Your task to perform on an android device: allow cookies in the chrome app Image 0: 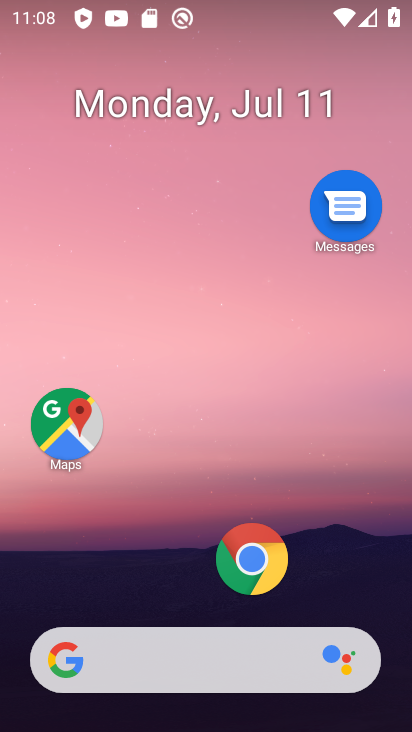
Step 0: drag from (329, 590) to (342, 126)
Your task to perform on an android device: allow cookies in the chrome app Image 1: 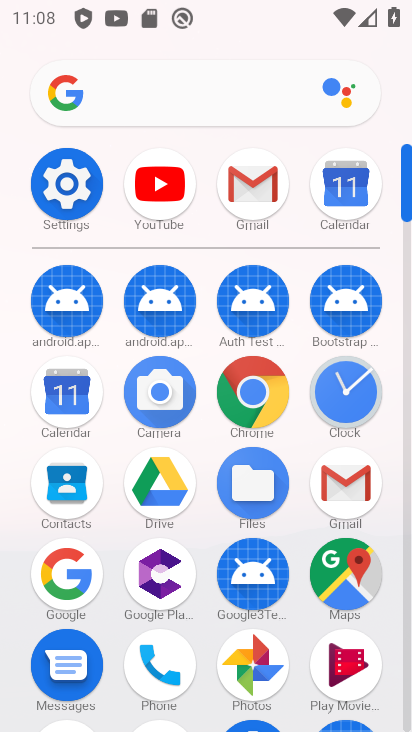
Step 1: click (278, 386)
Your task to perform on an android device: allow cookies in the chrome app Image 2: 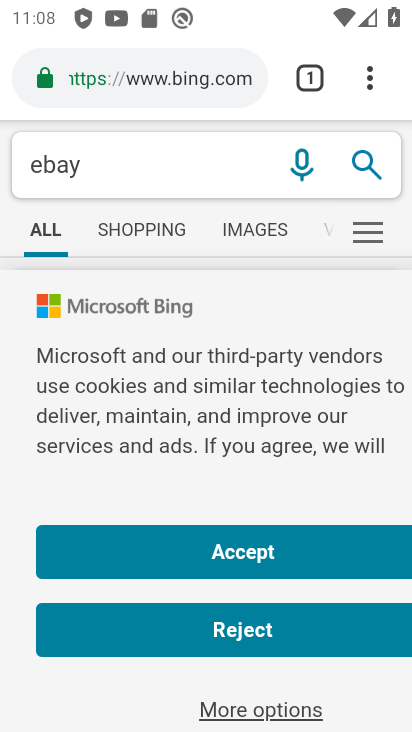
Step 2: click (367, 83)
Your task to perform on an android device: allow cookies in the chrome app Image 3: 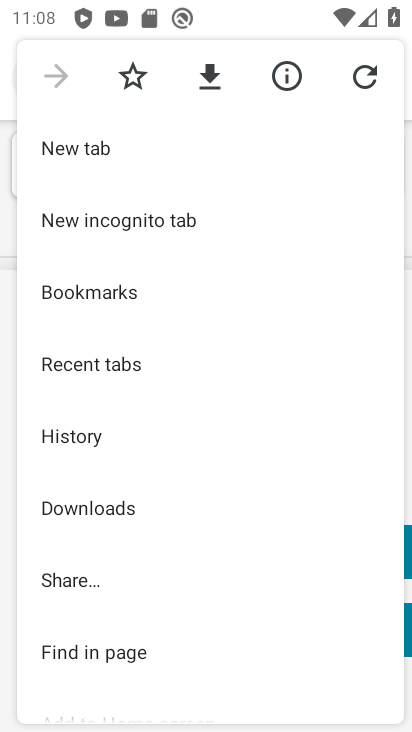
Step 3: drag from (302, 478) to (296, 396)
Your task to perform on an android device: allow cookies in the chrome app Image 4: 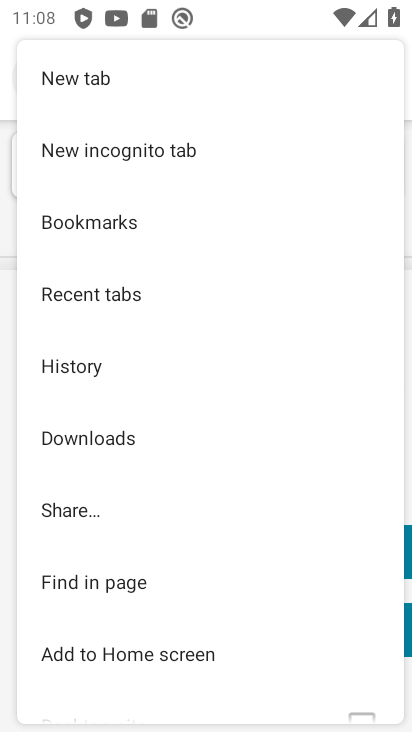
Step 4: drag from (263, 512) to (263, 431)
Your task to perform on an android device: allow cookies in the chrome app Image 5: 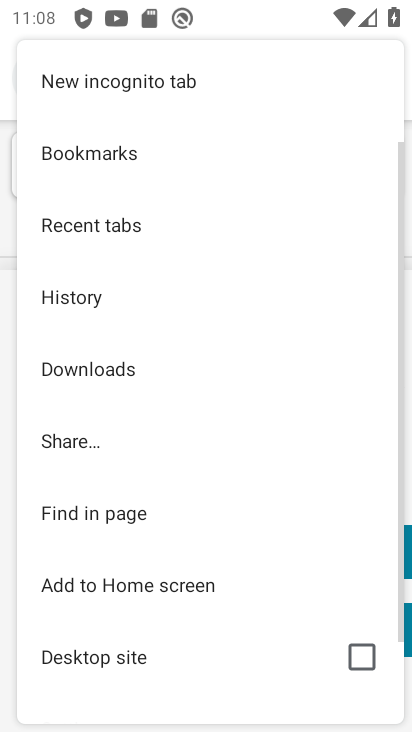
Step 5: drag from (244, 512) to (250, 415)
Your task to perform on an android device: allow cookies in the chrome app Image 6: 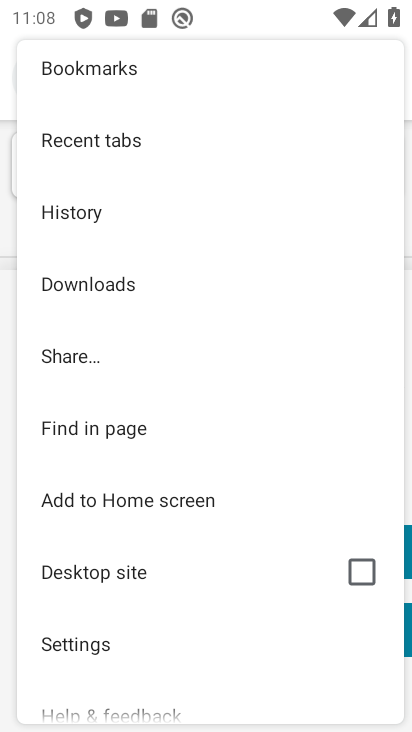
Step 6: drag from (244, 526) to (256, 430)
Your task to perform on an android device: allow cookies in the chrome app Image 7: 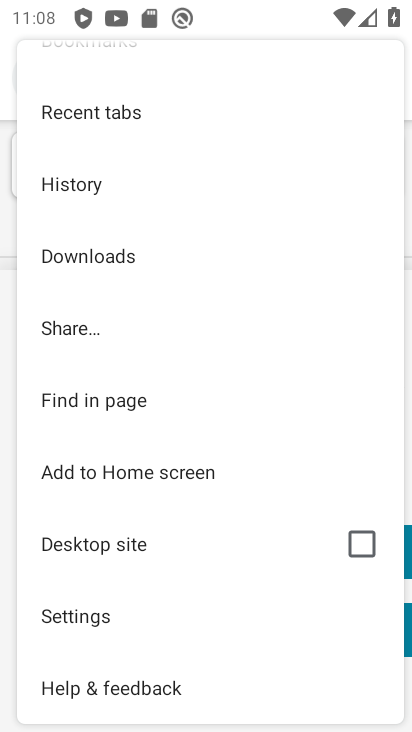
Step 7: click (161, 616)
Your task to perform on an android device: allow cookies in the chrome app Image 8: 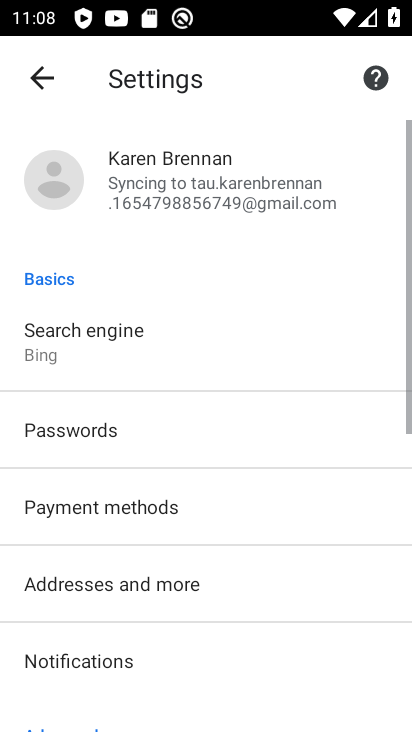
Step 8: drag from (272, 567) to (273, 521)
Your task to perform on an android device: allow cookies in the chrome app Image 9: 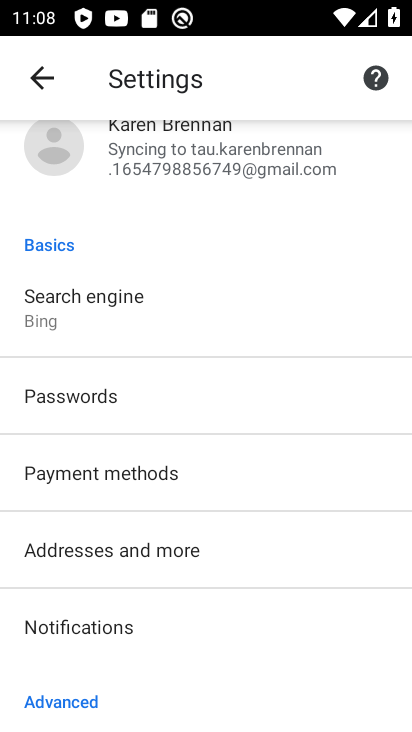
Step 9: drag from (273, 549) to (282, 482)
Your task to perform on an android device: allow cookies in the chrome app Image 10: 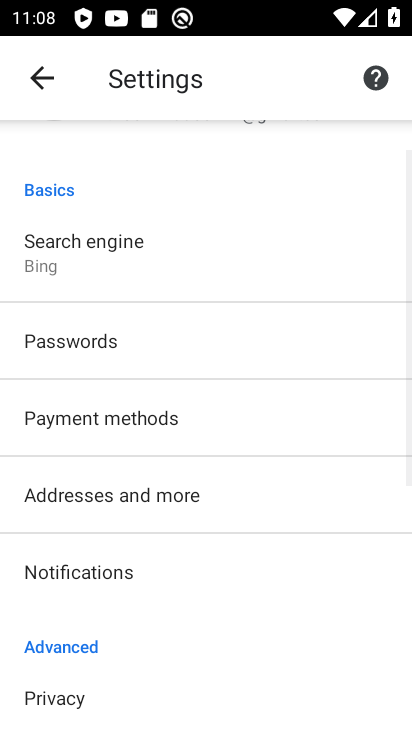
Step 10: drag from (277, 570) to (275, 475)
Your task to perform on an android device: allow cookies in the chrome app Image 11: 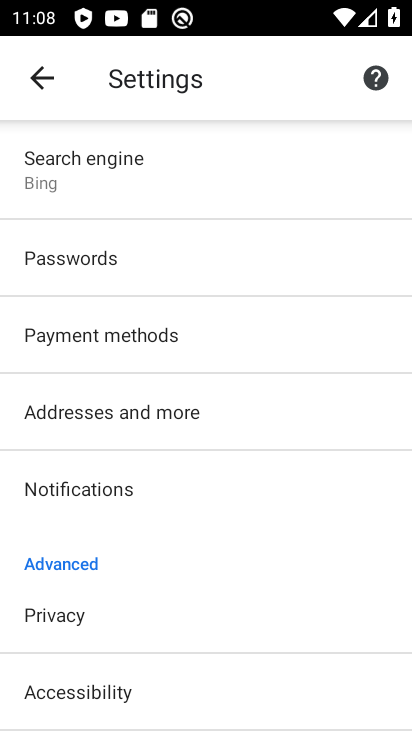
Step 11: drag from (283, 555) to (281, 470)
Your task to perform on an android device: allow cookies in the chrome app Image 12: 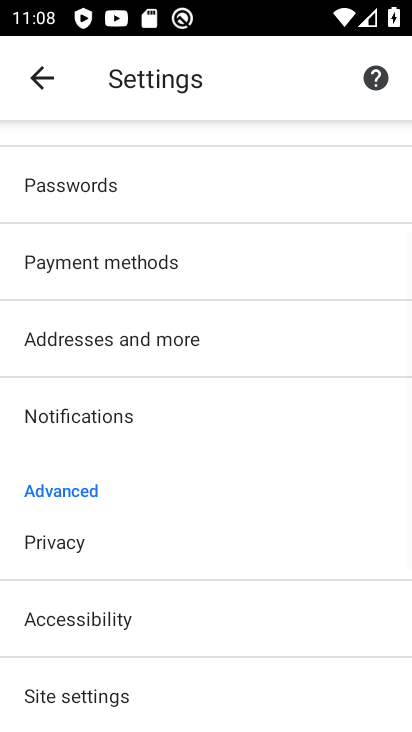
Step 12: drag from (277, 551) to (285, 450)
Your task to perform on an android device: allow cookies in the chrome app Image 13: 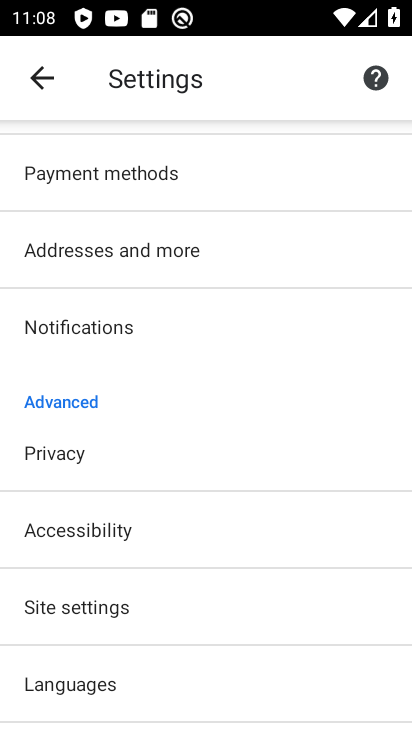
Step 13: drag from (283, 542) to (296, 452)
Your task to perform on an android device: allow cookies in the chrome app Image 14: 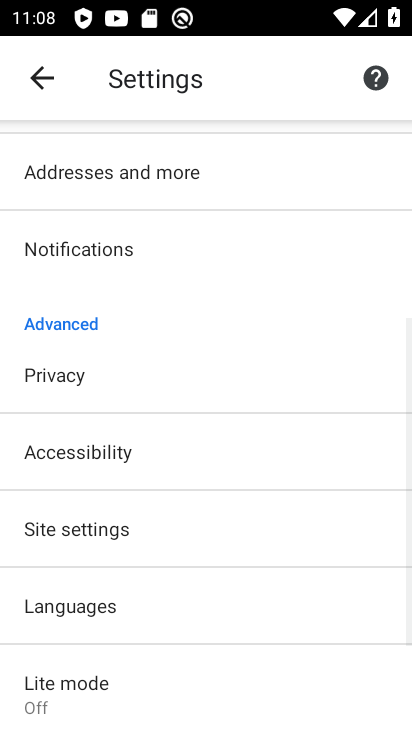
Step 14: drag from (287, 554) to (289, 497)
Your task to perform on an android device: allow cookies in the chrome app Image 15: 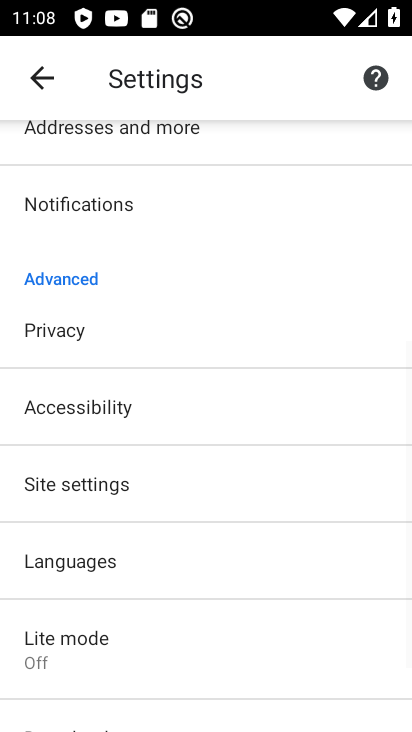
Step 15: drag from (277, 567) to (282, 491)
Your task to perform on an android device: allow cookies in the chrome app Image 16: 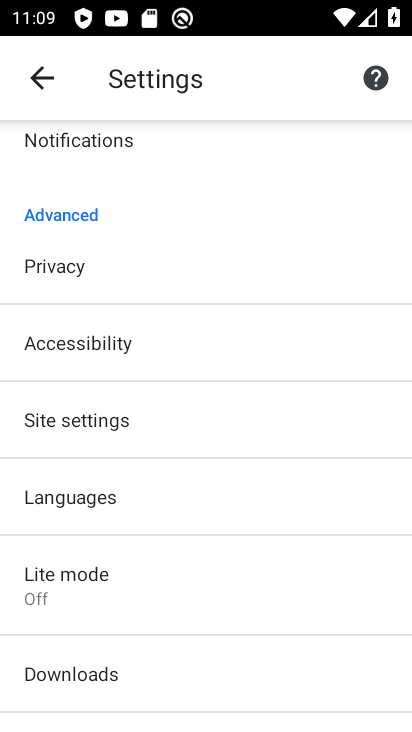
Step 16: drag from (266, 544) to (276, 400)
Your task to perform on an android device: allow cookies in the chrome app Image 17: 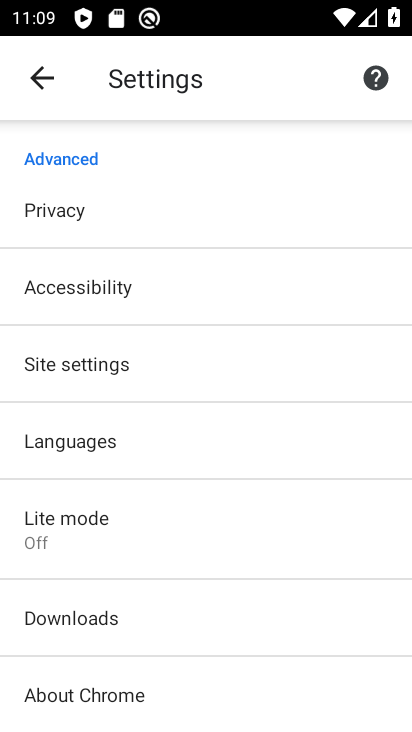
Step 17: drag from (282, 549) to (277, 446)
Your task to perform on an android device: allow cookies in the chrome app Image 18: 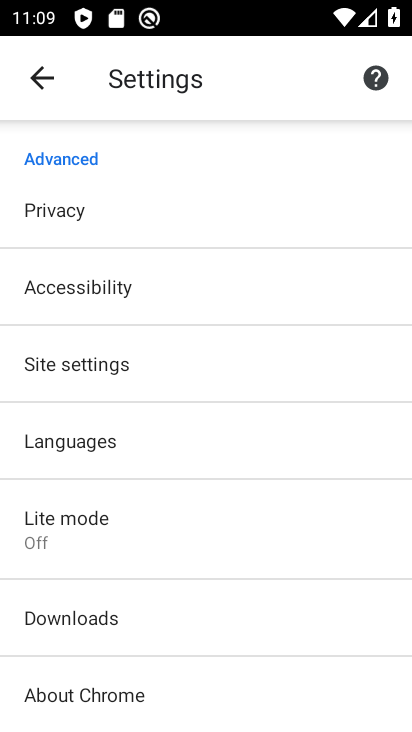
Step 18: click (178, 358)
Your task to perform on an android device: allow cookies in the chrome app Image 19: 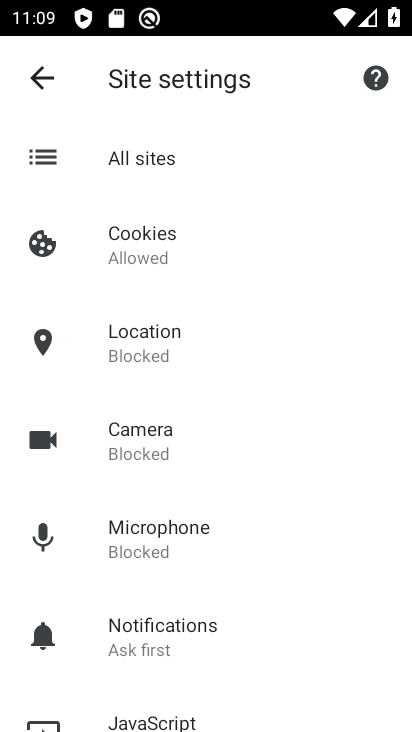
Step 19: drag from (258, 439) to (261, 316)
Your task to perform on an android device: allow cookies in the chrome app Image 20: 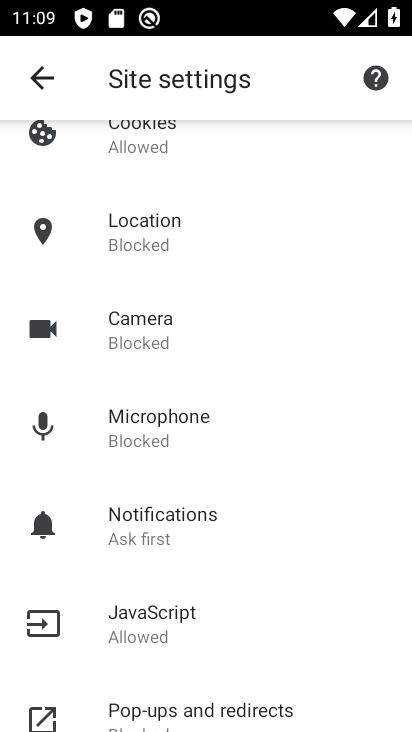
Step 20: drag from (287, 409) to (297, 275)
Your task to perform on an android device: allow cookies in the chrome app Image 21: 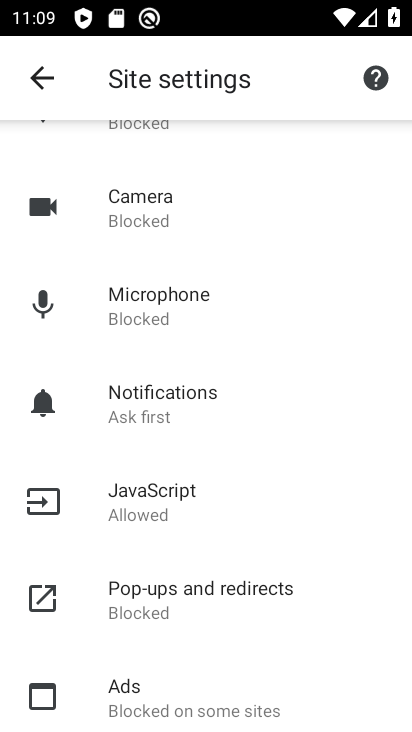
Step 21: drag from (284, 428) to (286, 297)
Your task to perform on an android device: allow cookies in the chrome app Image 22: 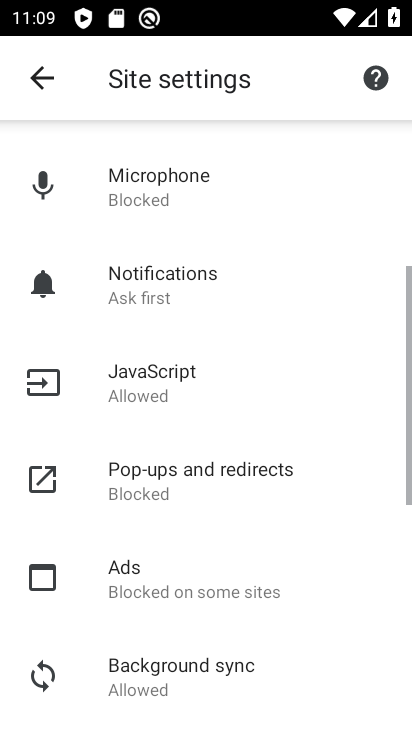
Step 22: drag from (308, 218) to (313, 320)
Your task to perform on an android device: allow cookies in the chrome app Image 23: 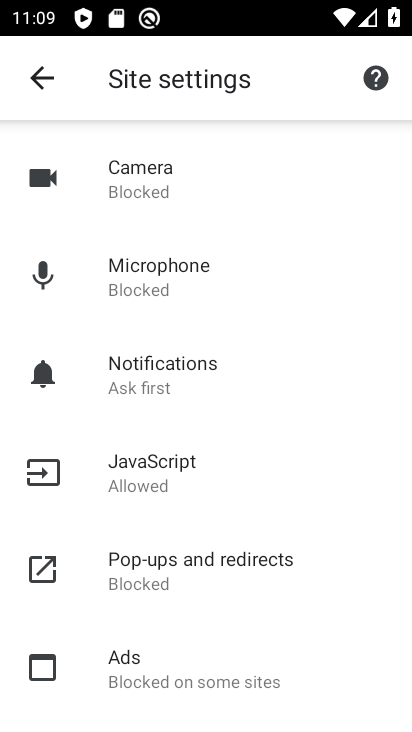
Step 23: drag from (312, 232) to (323, 369)
Your task to perform on an android device: allow cookies in the chrome app Image 24: 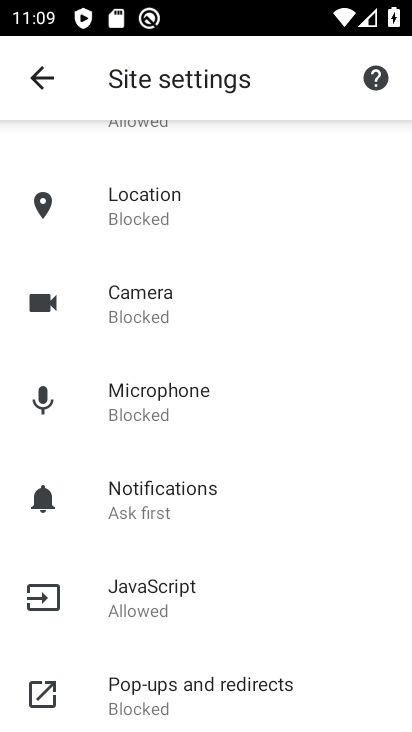
Step 24: drag from (303, 214) to (295, 432)
Your task to perform on an android device: allow cookies in the chrome app Image 25: 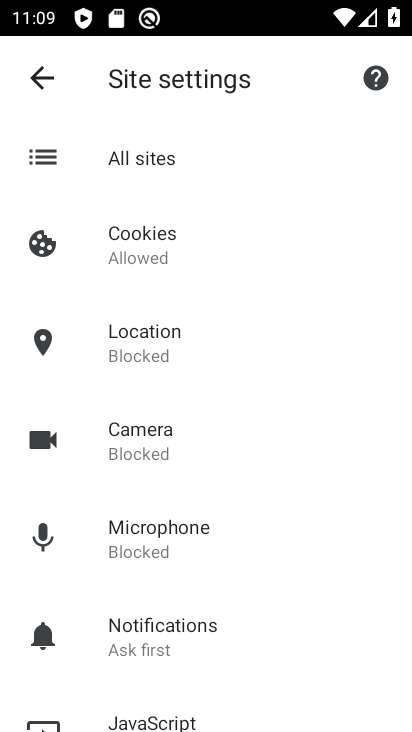
Step 25: click (188, 256)
Your task to perform on an android device: allow cookies in the chrome app Image 26: 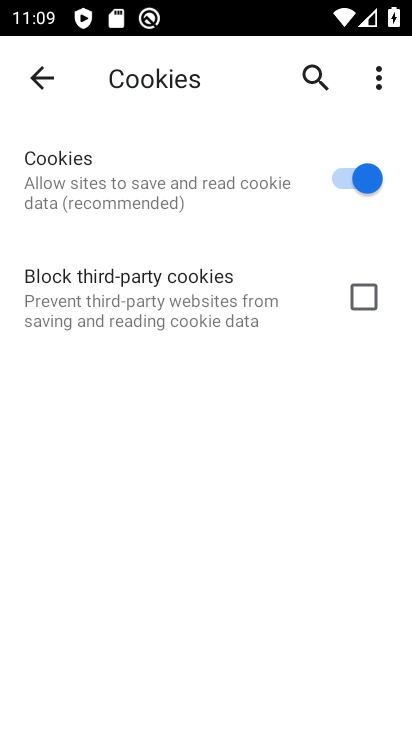
Step 26: task complete